Your task to perform on an android device: Open accessibility settings Image 0: 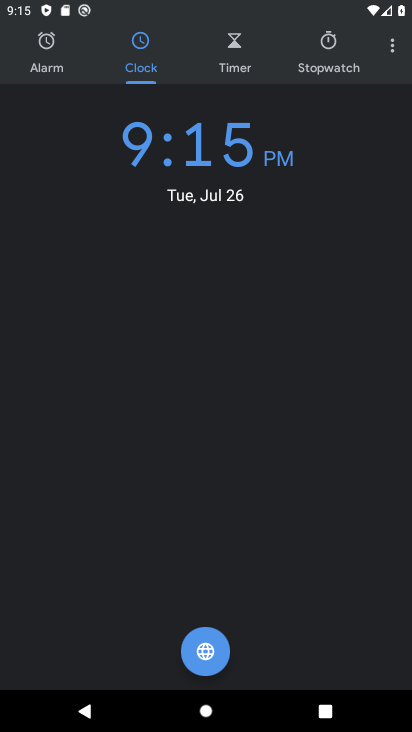
Step 0: press home button
Your task to perform on an android device: Open accessibility settings Image 1: 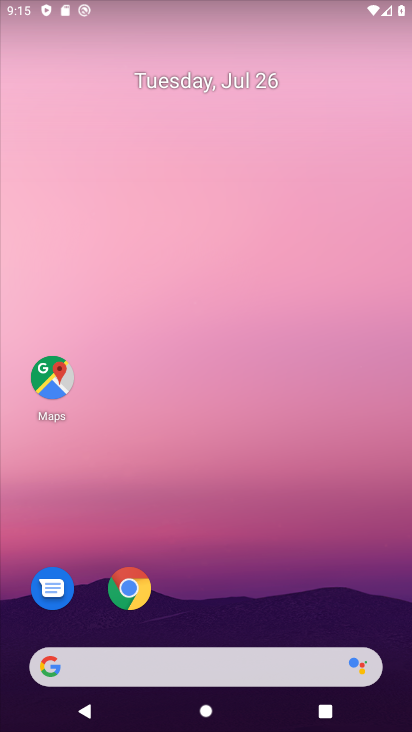
Step 1: drag from (87, 639) to (115, 185)
Your task to perform on an android device: Open accessibility settings Image 2: 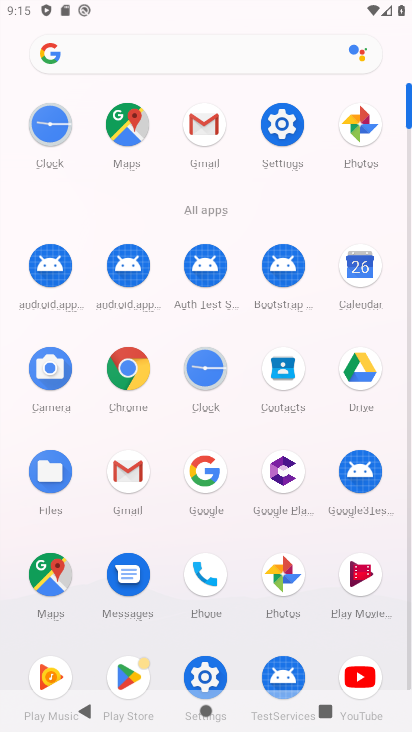
Step 2: click (293, 128)
Your task to perform on an android device: Open accessibility settings Image 3: 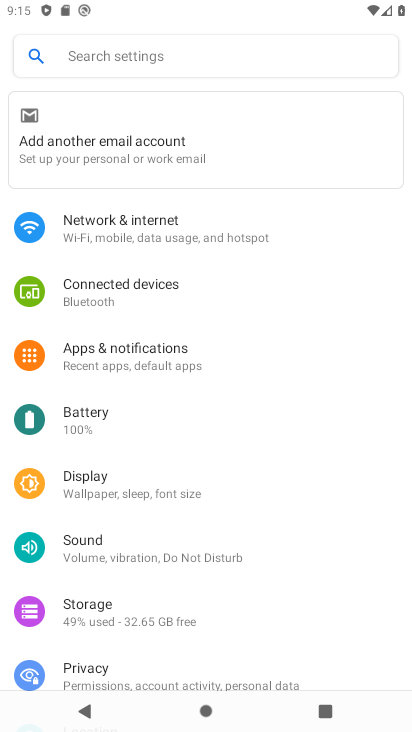
Step 3: drag from (169, 679) to (174, 549)
Your task to perform on an android device: Open accessibility settings Image 4: 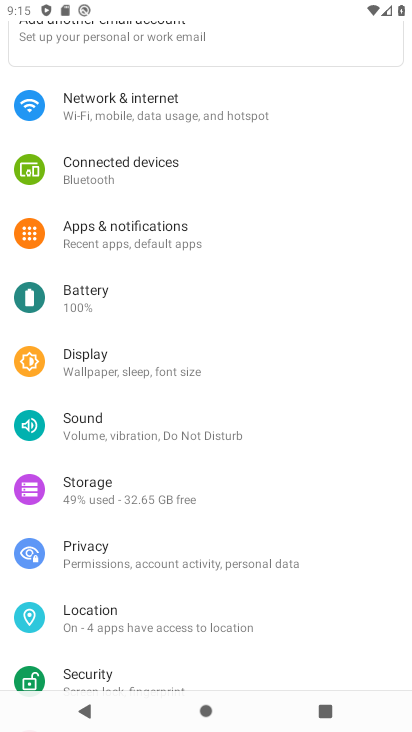
Step 4: drag from (168, 652) to (199, 219)
Your task to perform on an android device: Open accessibility settings Image 5: 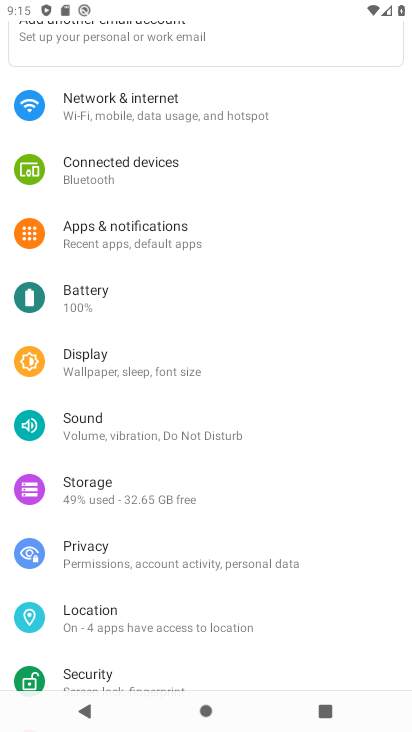
Step 5: drag from (147, 667) to (184, 231)
Your task to perform on an android device: Open accessibility settings Image 6: 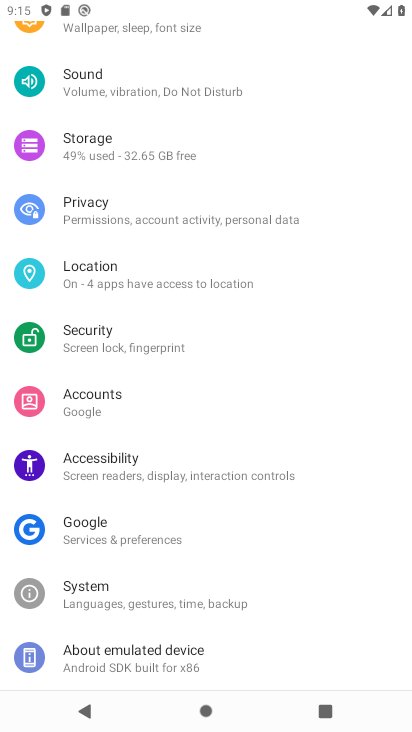
Step 6: click (89, 483)
Your task to perform on an android device: Open accessibility settings Image 7: 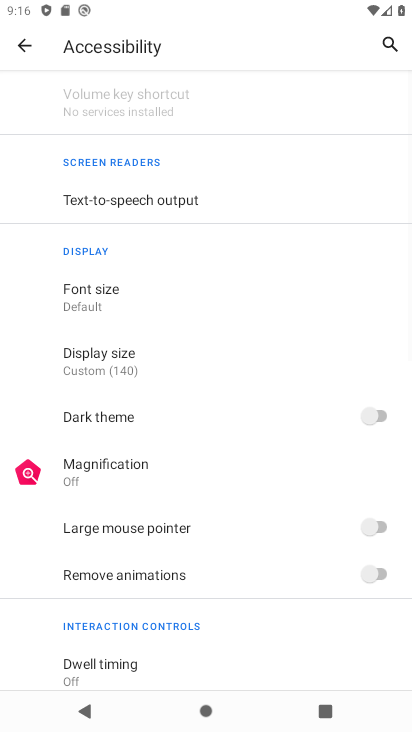
Step 7: task complete